Your task to perform on an android device: clear history in the chrome app Image 0: 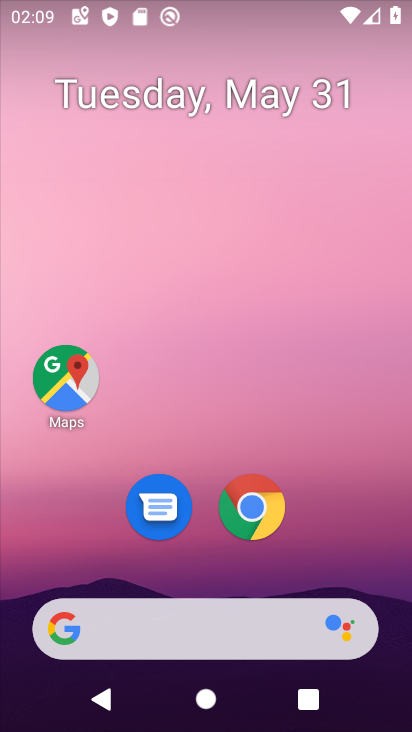
Step 0: click (251, 521)
Your task to perform on an android device: clear history in the chrome app Image 1: 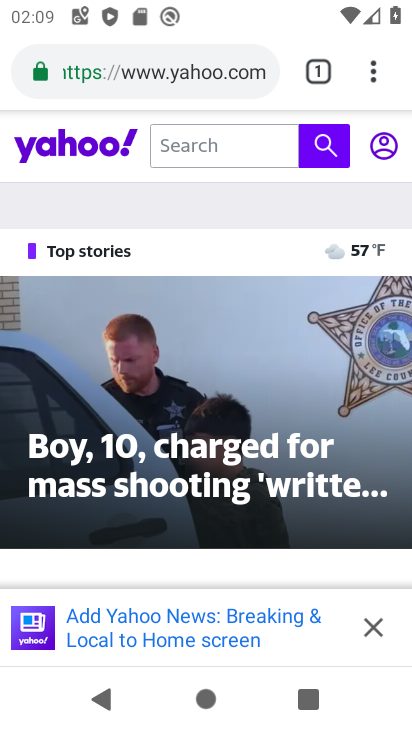
Step 1: click (383, 78)
Your task to perform on an android device: clear history in the chrome app Image 2: 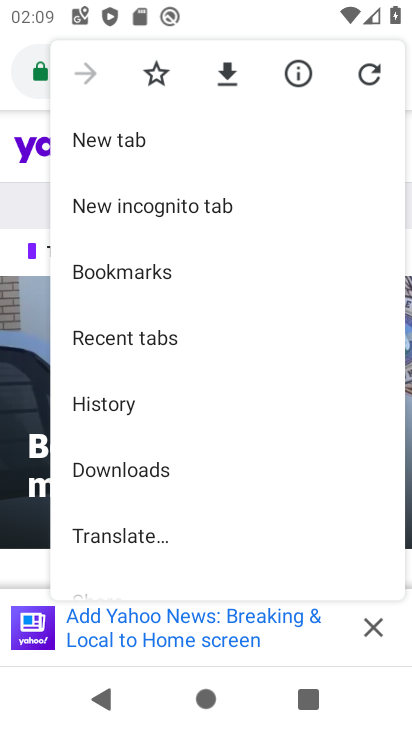
Step 2: click (116, 420)
Your task to perform on an android device: clear history in the chrome app Image 3: 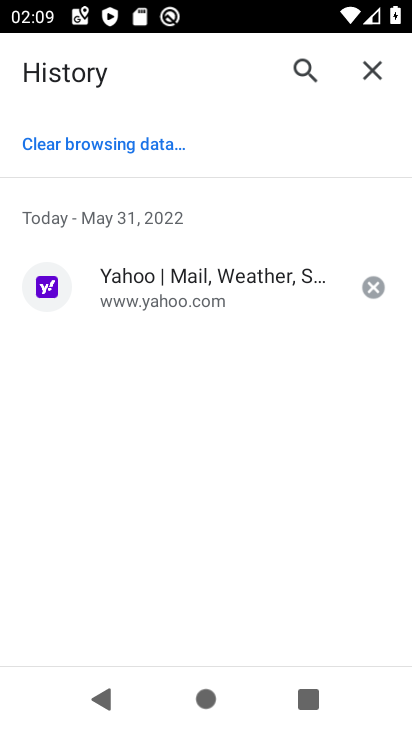
Step 3: click (103, 402)
Your task to perform on an android device: clear history in the chrome app Image 4: 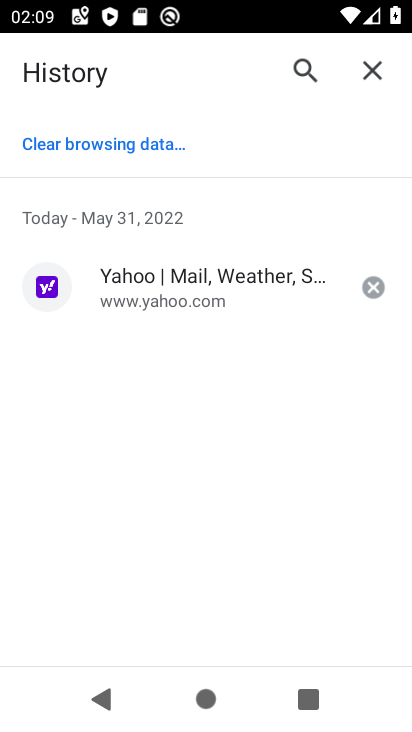
Step 4: click (88, 418)
Your task to perform on an android device: clear history in the chrome app Image 5: 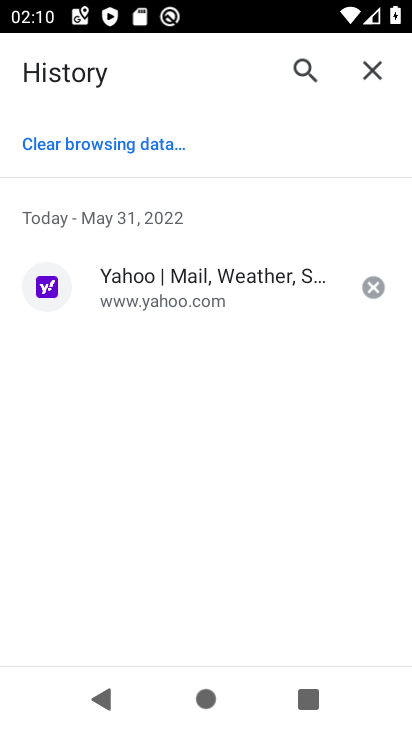
Step 5: click (115, 151)
Your task to perform on an android device: clear history in the chrome app Image 6: 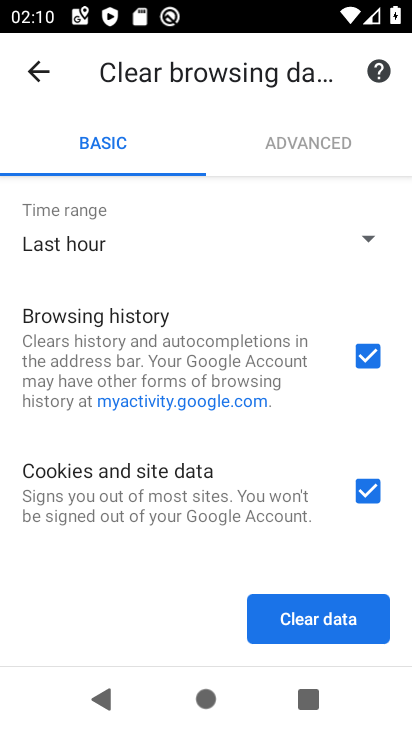
Step 6: click (303, 619)
Your task to perform on an android device: clear history in the chrome app Image 7: 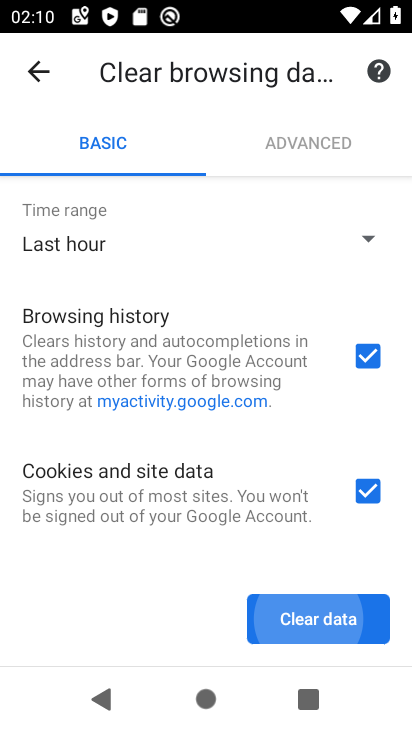
Step 7: click (303, 619)
Your task to perform on an android device: clear history in the chrome app Image 8: 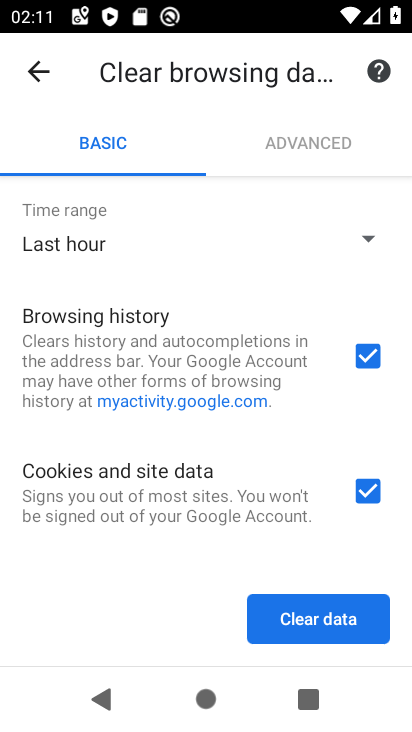
Step 8: click (292, 615)
Your task to perform on an android device: clear history in the chrome app Image 9: 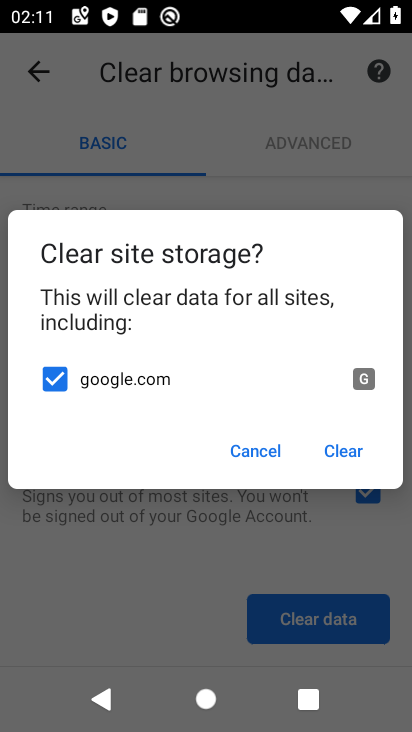
Step 9: click (345, 460)
Your task to perform on an android device: clear history in the chrome app Image 10: 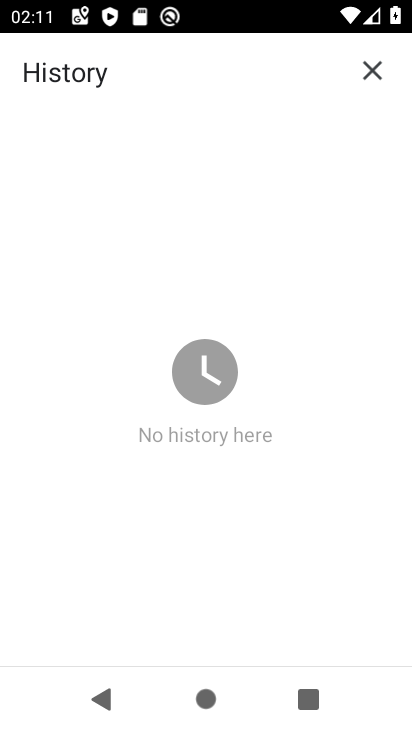
Step 10: task complete